Your task to perform on an android device: Do I have any events this weekend? Image 0: 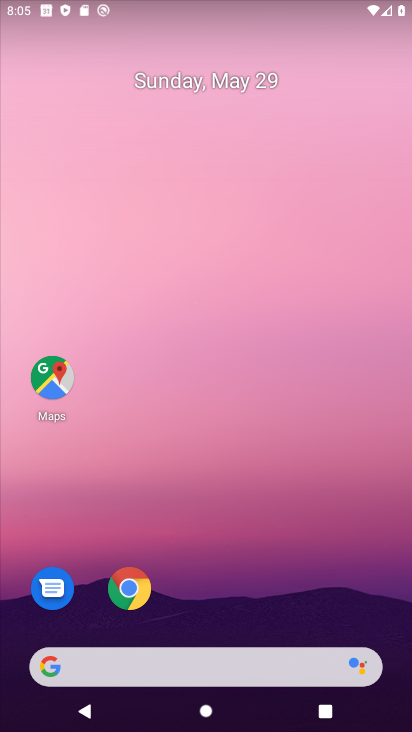
Step 0: drag from (226, 598) to (231, 236)
Your task to perform on an android device: Do I have any events this weekend? Image 1: 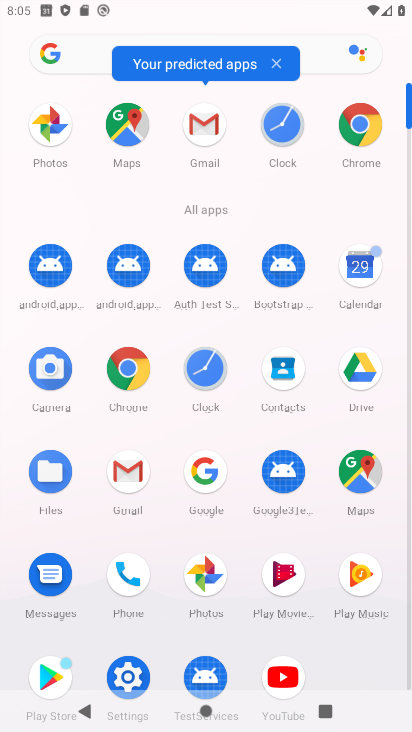
Step 1: click (352, 267)
Your task to perform on an android device: Do I have any events this weekend? Image 2: 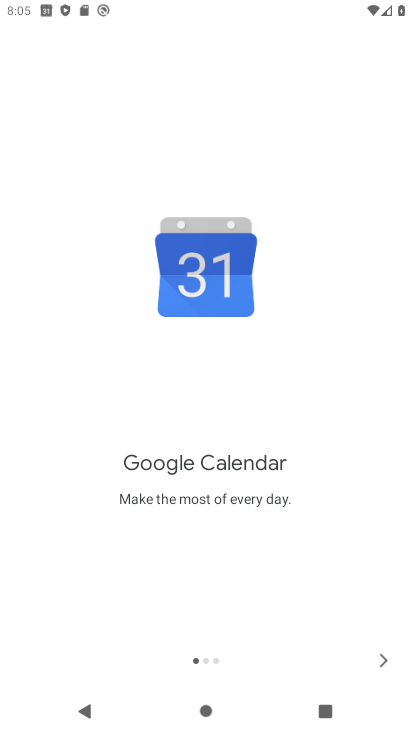
Step 2: click (357, 662)
Your task to perform on an android device: Do I have any events this weekend? Image 3: 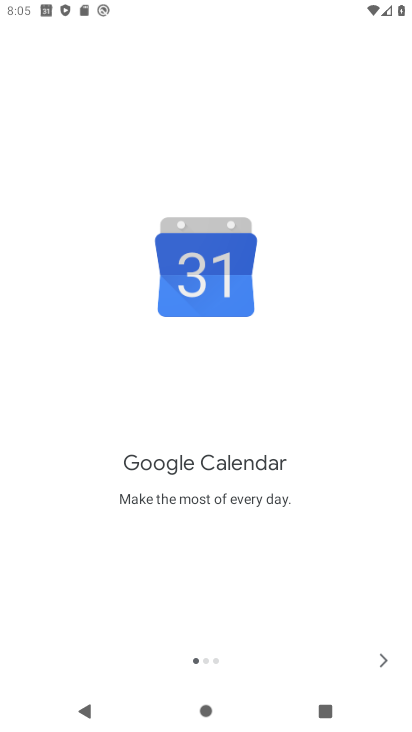
Step 3: click (384, 656)
Your task to perform on an android device: Do I have any events this weekend? Image 4: 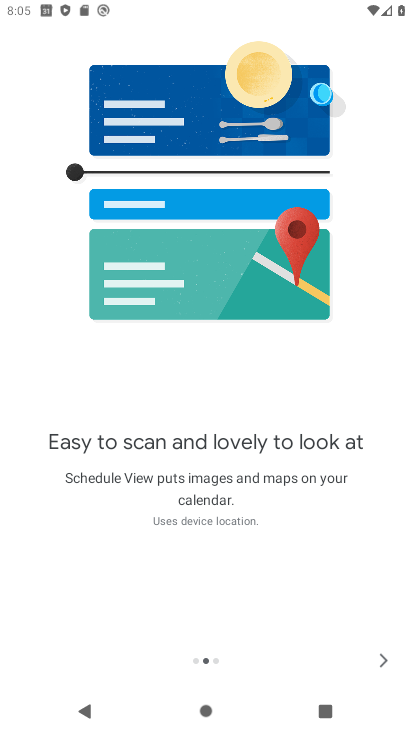
Step 4: click (379, 649)
Your task to perform on an android device: Do I have any events this weekend? Image 5: 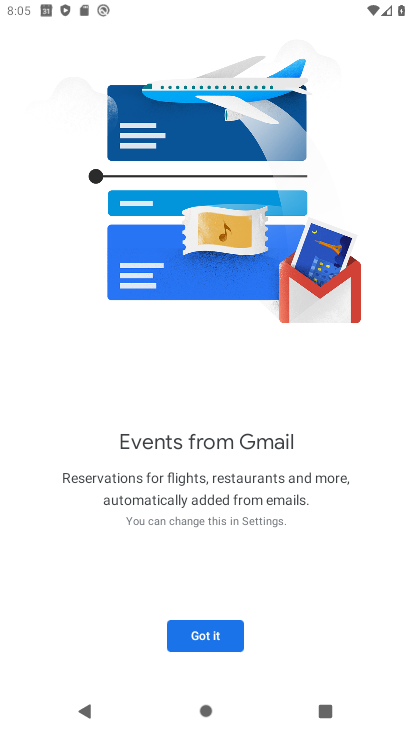
Step 5: click (202, 629)
Your task to perform on an android device: Do I have any events this weekend? Image 6: 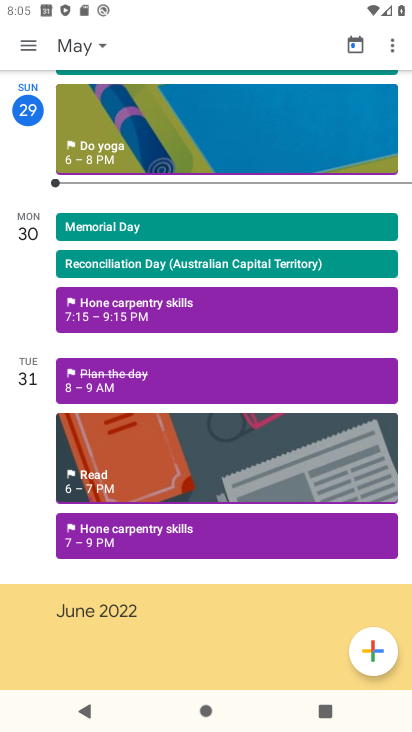
Step 6: click (22, 42)
Your task to perform on an android device: Do I have any events this weekend? Image 7: 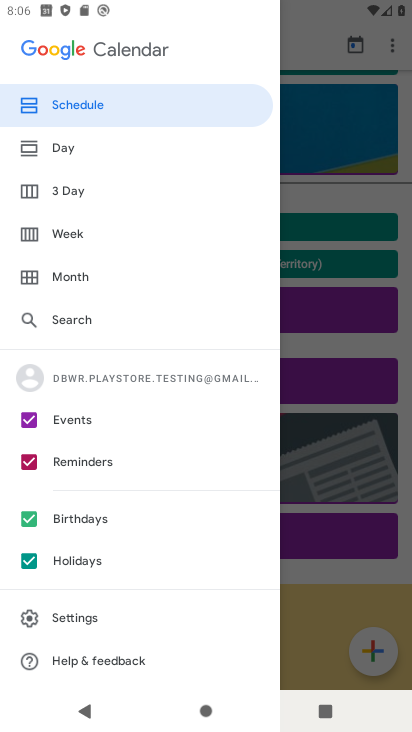
Step 7: click (140, 407)
Your task to perform on an android device: Do I have any events this weekend? Image 8: 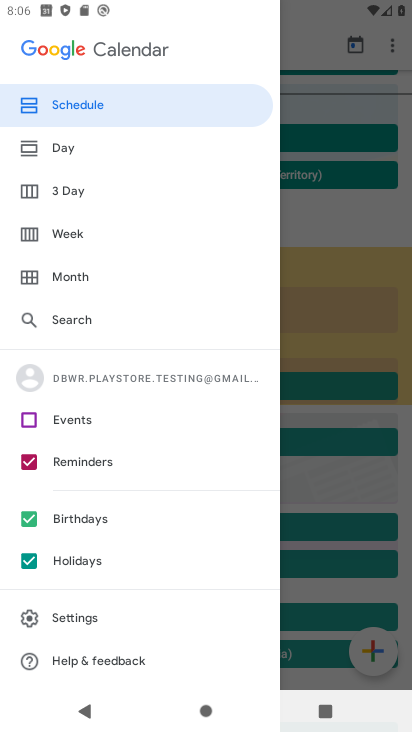
Step 8: click (366, 222)
Your task to perform on an android device: Do I have any events this weekend? Image 9: 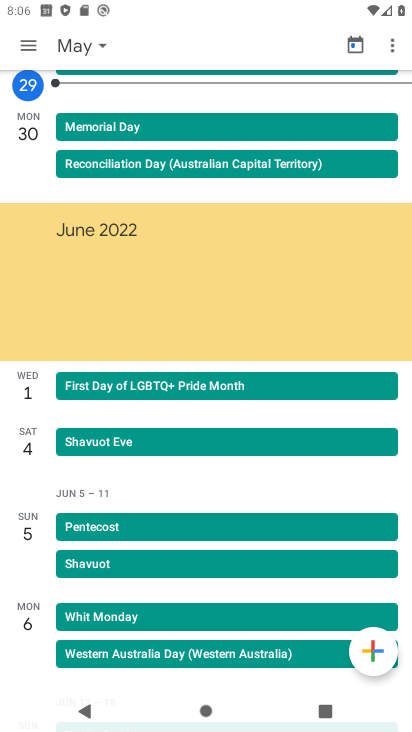
Step 9: task complete